Your task to perform on an android device: toggle sleep mode Image 0: 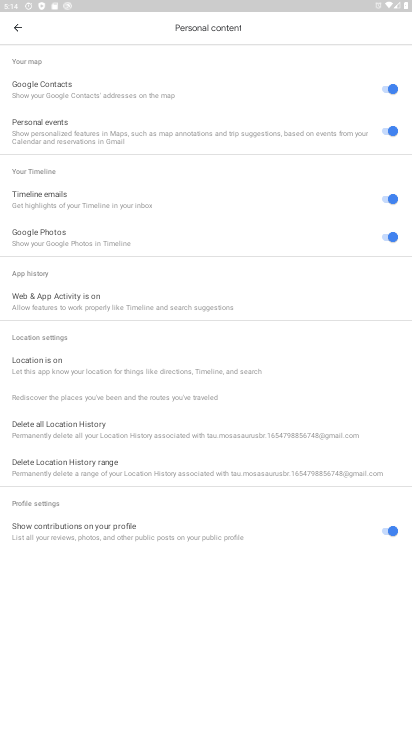
Step 0: drag from (229, 472) to (261, 46)
Your task to perform on an android device: toggle sleep mode Image 1: 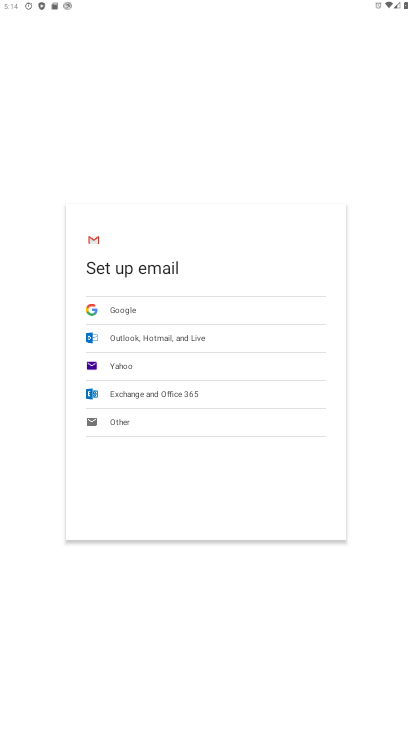
Step 1: press home button
Your task to perform on an android device: toggle sleep mode Image 2: 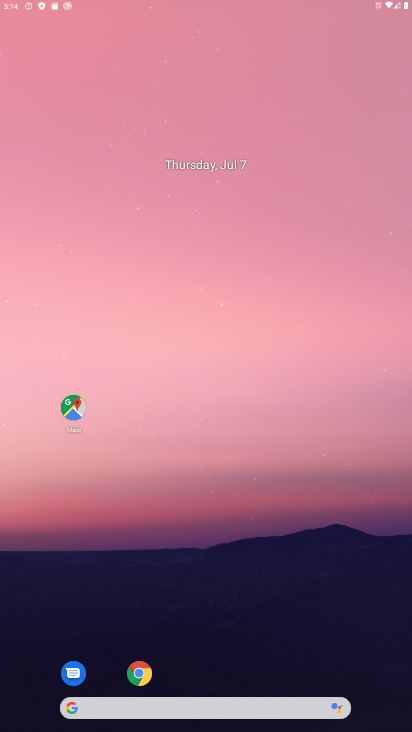
Step 2: drag from (287, 689) to (296, 53)
Your task to perform on an android device: toggle sleep mode Image 3: 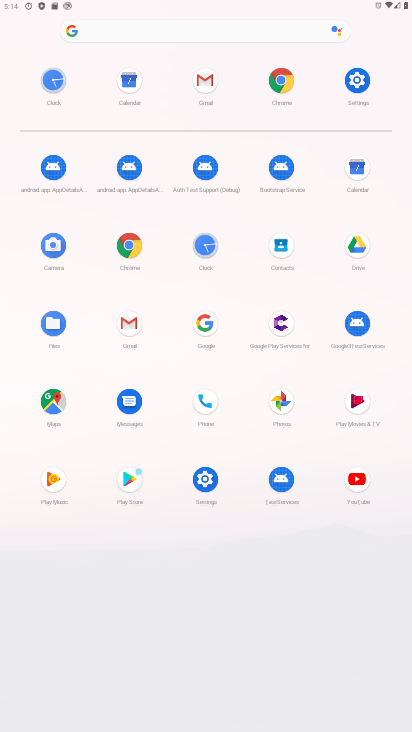
Step 3: click (361, 83)
Your task to perform on an android device: toggle sleep mode Image 4: 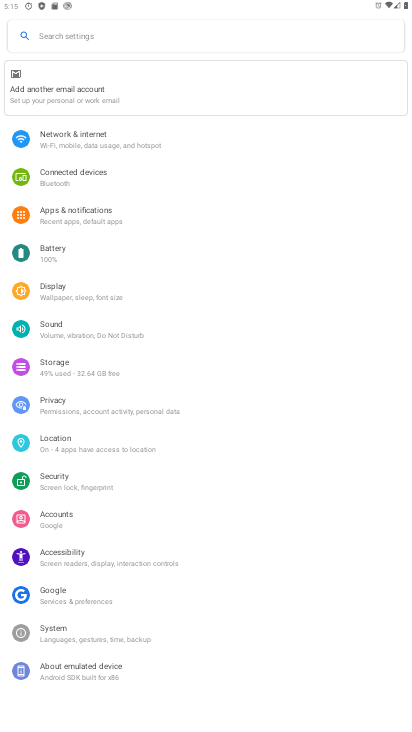
Step 4: click (68, 294)
Your task to perform on an android device: toggle sleep mode Image 5: 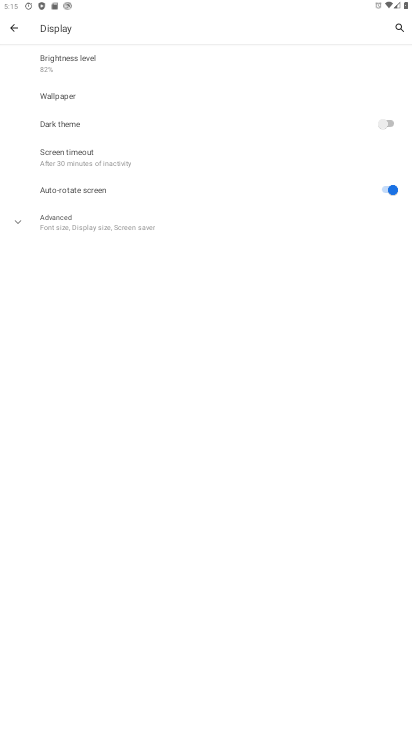
Step 5: task complete